Your task to perform on an android device: Go to settings Image 0: 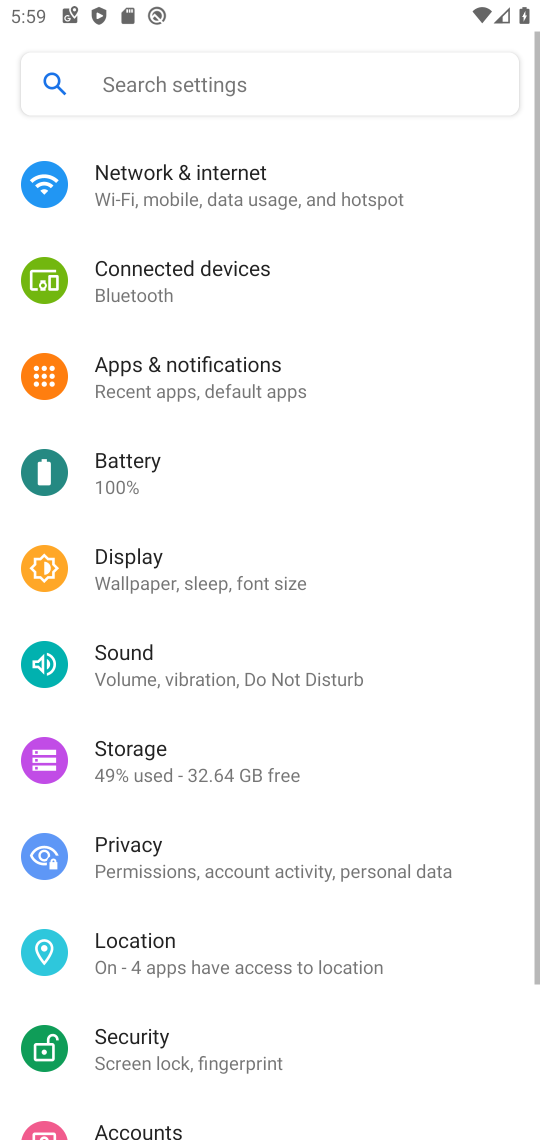
Step 0: press home button
Your task to perform on an android device: Go to settings Image 1: 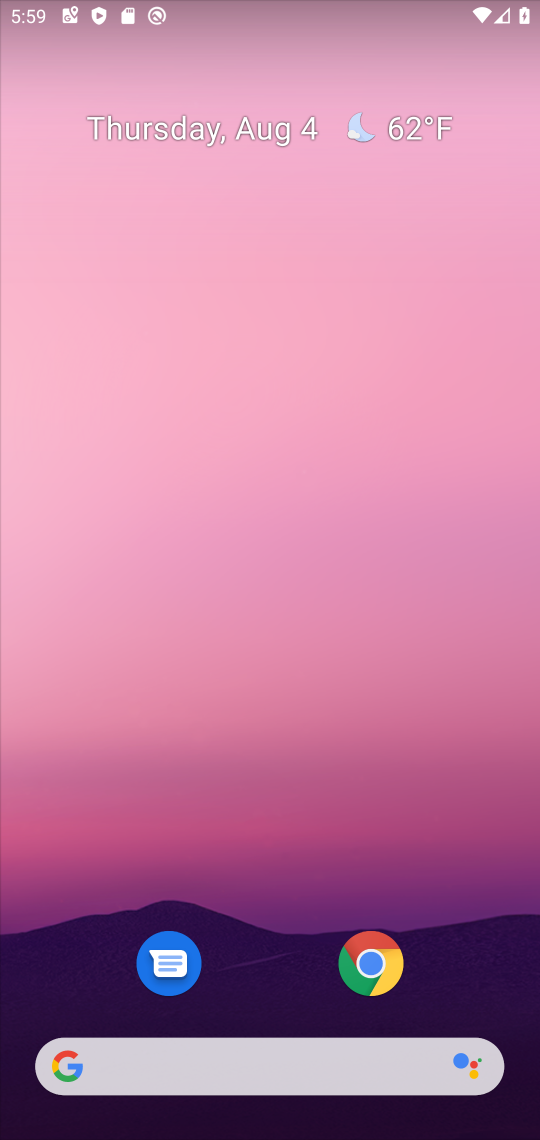
Step 1: drag from (276, 887) to (233, 424)
Your task to perform on an android device: Go to settings Image 2: 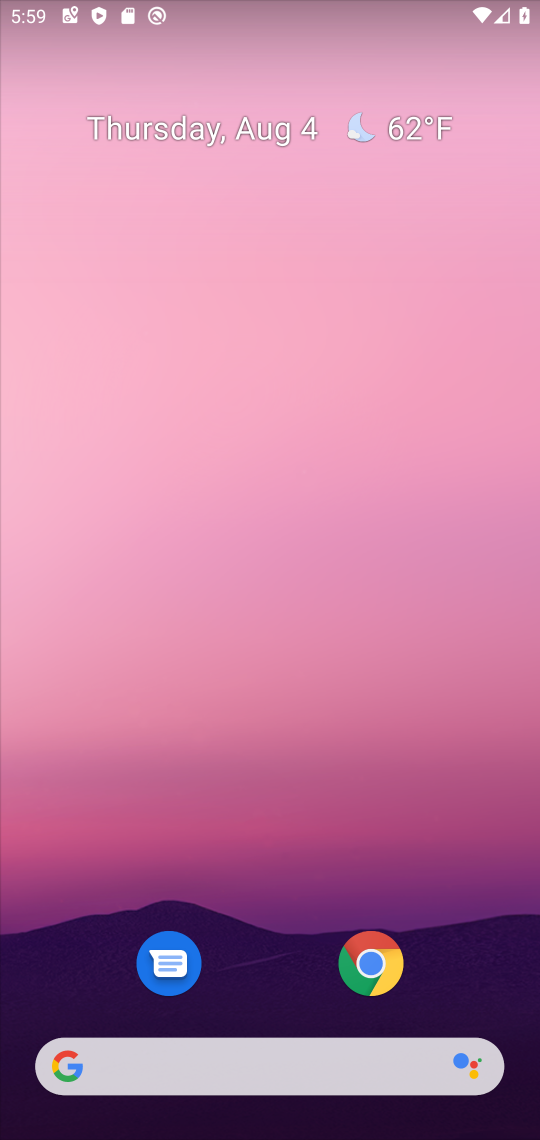
Step 2: drag from (269, 762) to (234, 29)
Your task to perform on an android device: Go to settings Image 3: 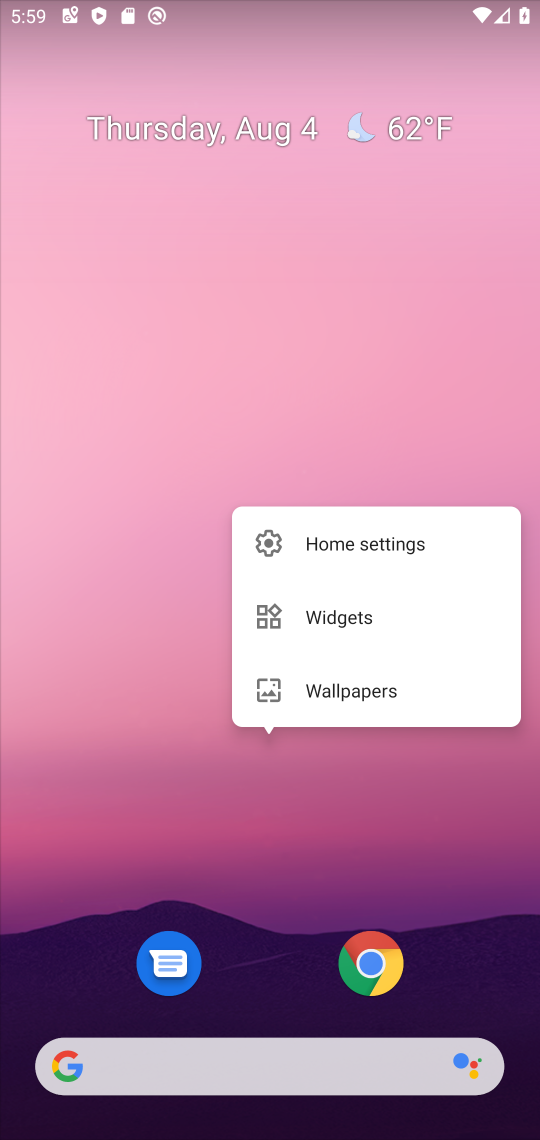
Step 3: click (290, 898)
Your task to perform on an android device: Go to settings Image 4: 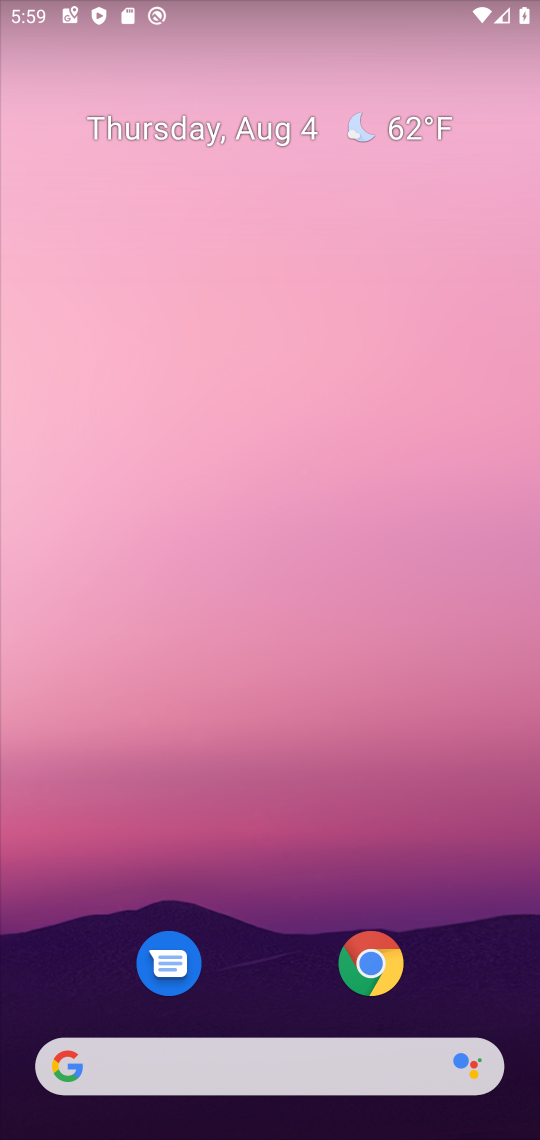
Step 4: drag from (276, 850) to (256, 197)
Your task to perform on an android device: Go to settings Image 5: 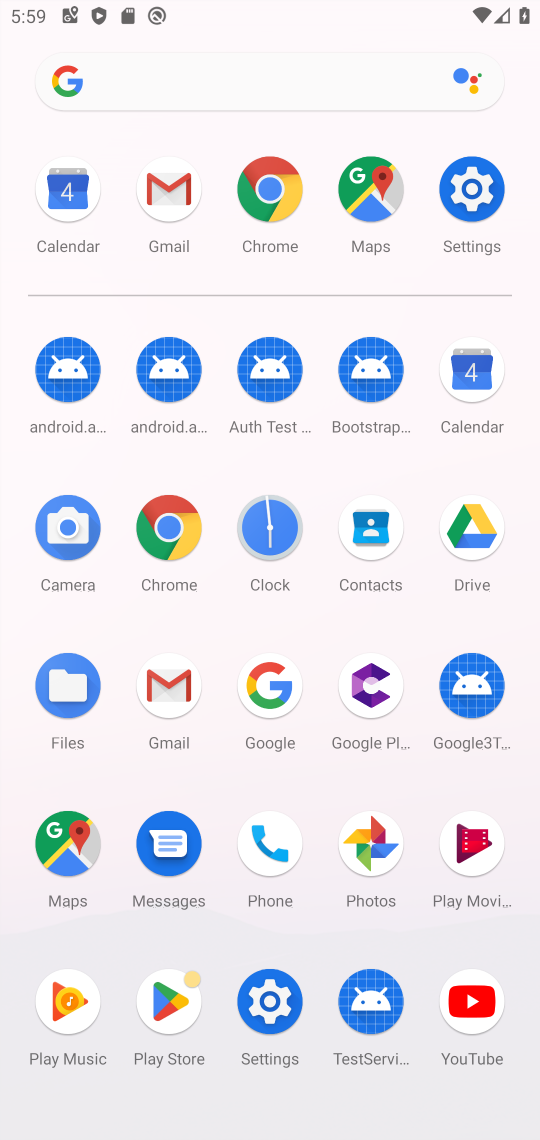
Step 5: click (475, 189)
Your task to perform on an android device: Go to settings Image 6: 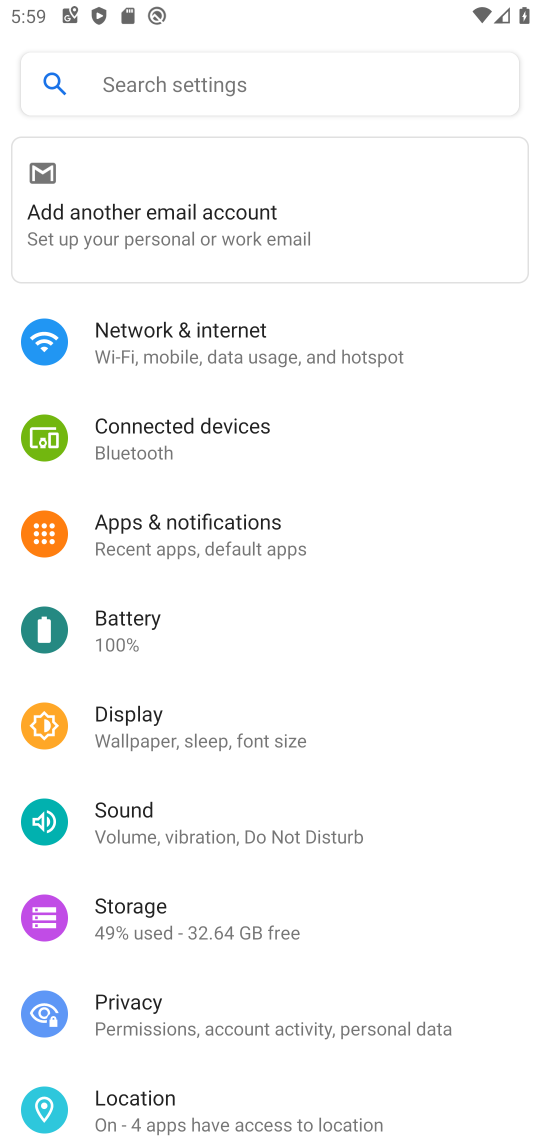
Step 6: task complete